Your task to perform on an android device: What's the weather going to be tomorrow? Image 0: 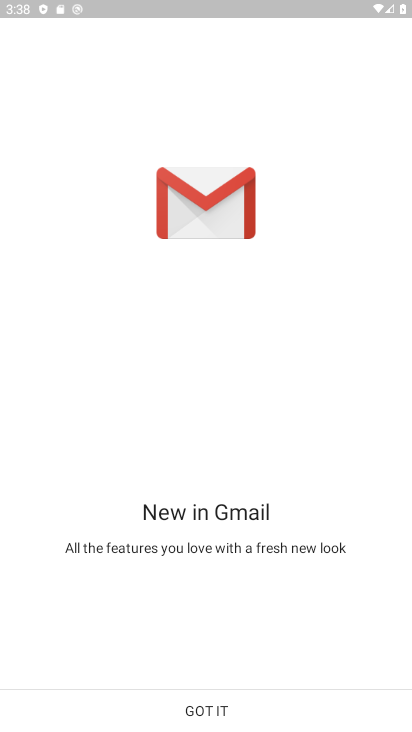
Step 0: press home button
Your task to perform on an android device: What's the weather going to be tomorrow? Image 1: 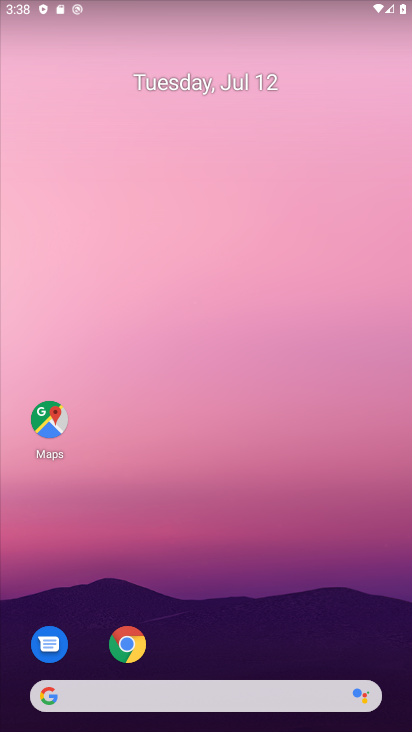
Step 1: click (121, 644)
Your task to perform on an android device: What's the weather going to be tomorrow? Image 2: 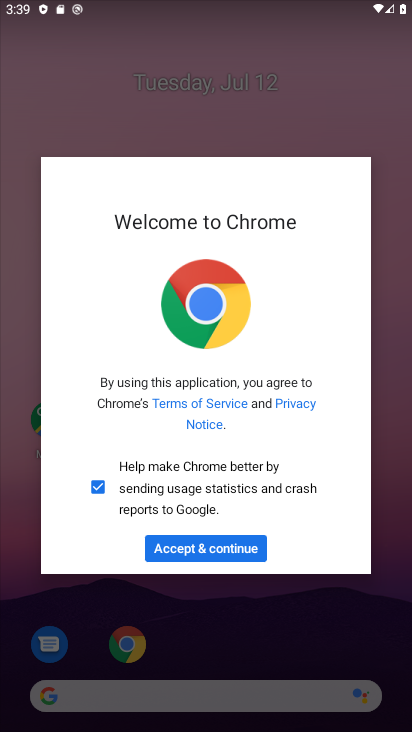
Step 2: click (227, 552)
Your task to perform on an android device: What's the weather going to be tomorrow? Image 3: 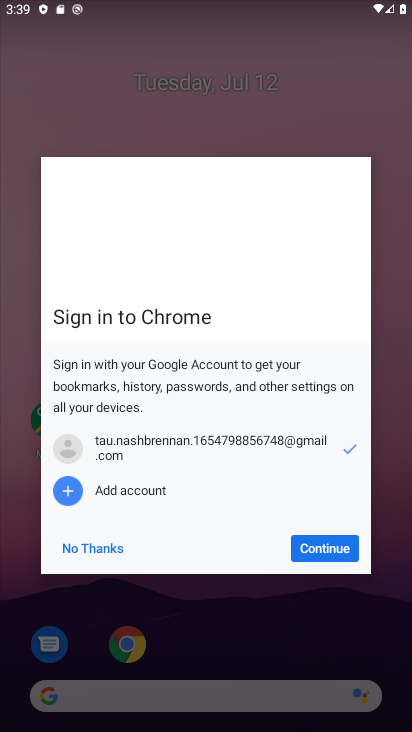
Step 3: click (227, 552)
Your task to perform on an android device: What's the weather going to be tomorrow? Image 4: 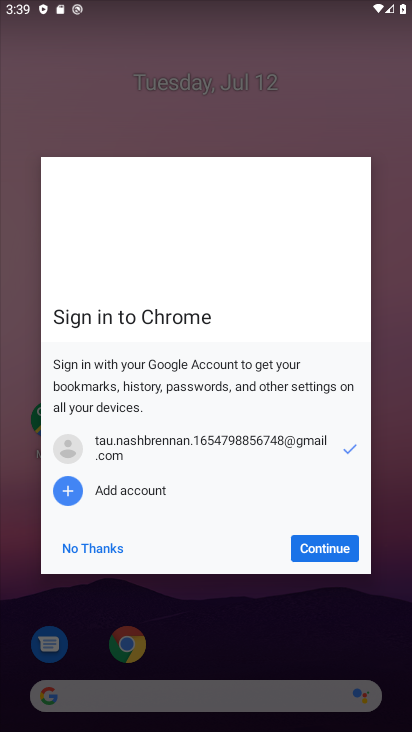
Step 4: click (320, 547)
Your task to perform on an android device: What's the weather going to be tomorrow? Image 5: 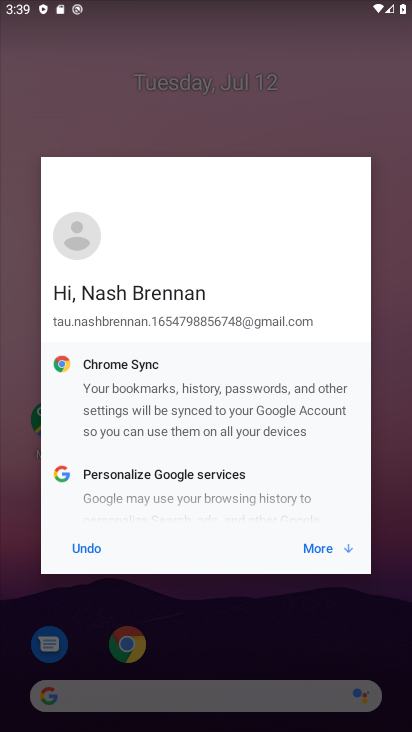
Step 5: click (320, 547)
Your task to perform on an android device: What's the weather going to be tomorrow? Image 6: 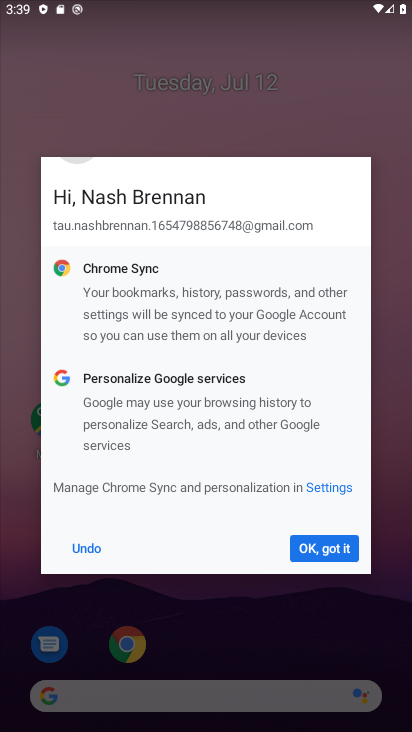
Step 6: click (320, 547)
Your task to perform on an android device: What's the weather going to be tomorrow? Image 7: 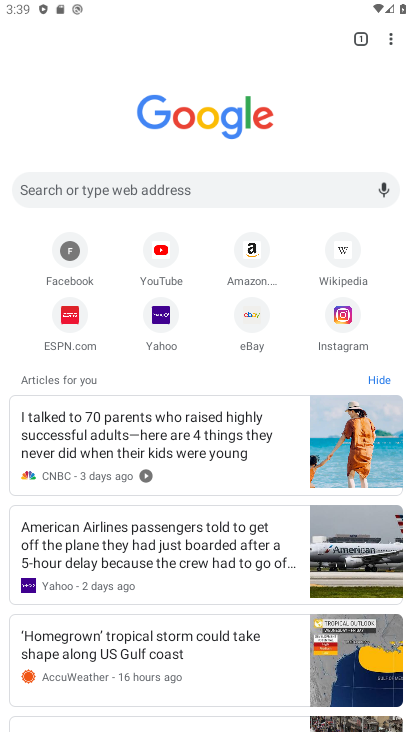
Step 7: click (226, 195)
Your task to perform on an android device: What's the weather going to be tomorrow? Image 8: 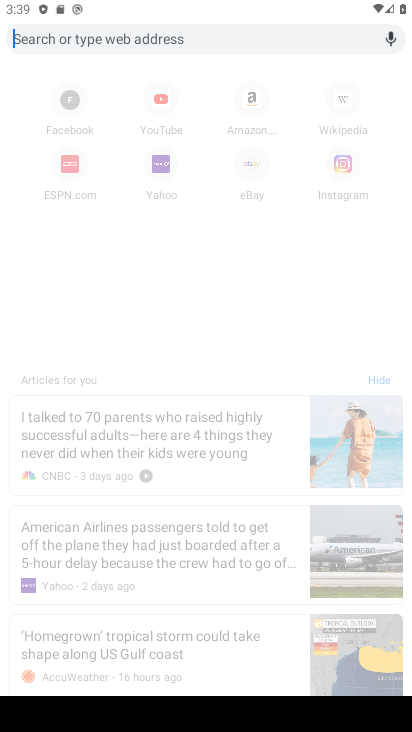
Step 8: type "weather tomorrow"
Your task to perform on an android device: What's the weather going to be tomorrow? Image 9: 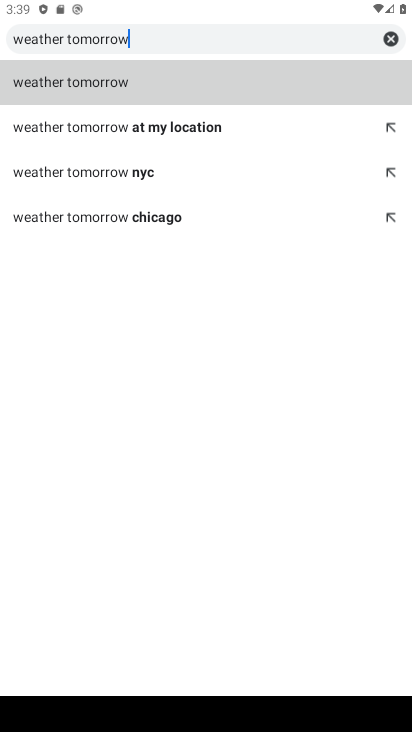
Step 9: click (114, 87)
Your task to perform on an android device: What's the weather going to be tomorrow? Image 10: 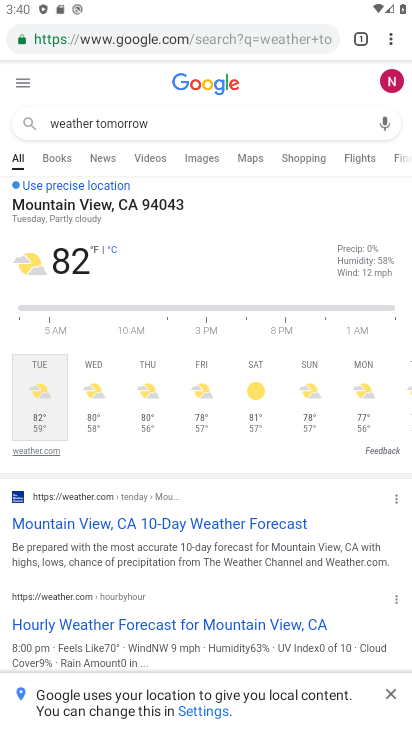
Step 10: task complete